Your task to perform on an android device: add a contact in the contacts app Image 0: 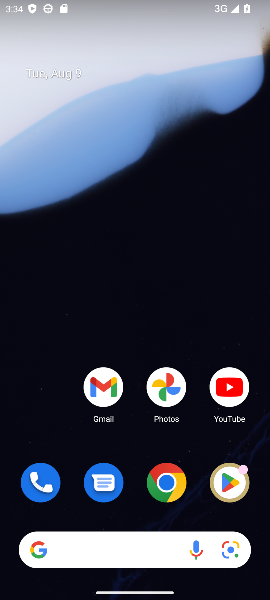
Step 0: drag from (141, 457) to (151, 120)
Your task to perform on an android device: add a contact in the contacts app Image 1: 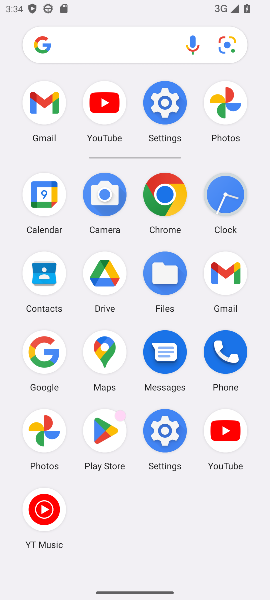
Step 1: click (48, 282)
Your task to perform on an android device: add a contact in the contacts app Image 2: 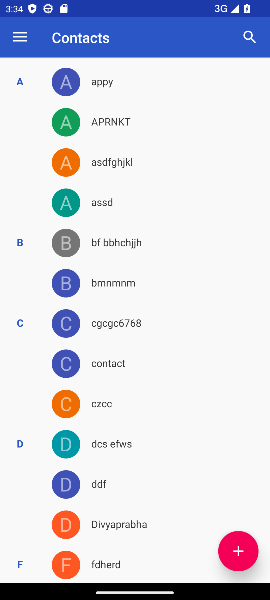
Step 2: click (238, 548)
Your task to perform on an android device: add a contact in the contacts app Image 3: 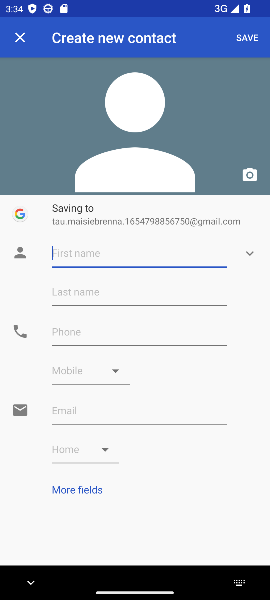
Step 3: click (97, 251)
Your task to perform on an android device: add a contact in the contacts app Image 4: 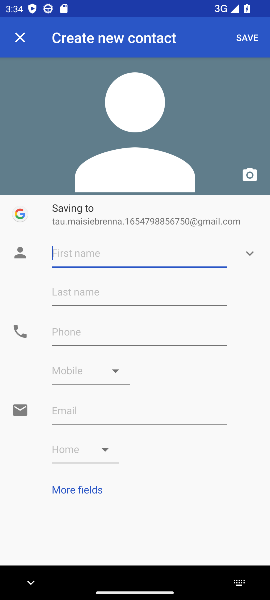
Step 4: type "hfhfgh"
Your task to perform on an android device: add a contact in the contacts app Image 5: 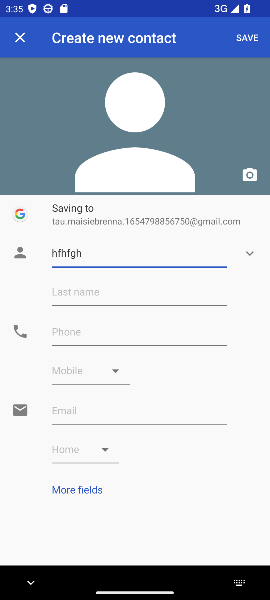
Step 5: click (82, 329)
Your task to perform on an android device: add a contact in the contacts app Image 6: 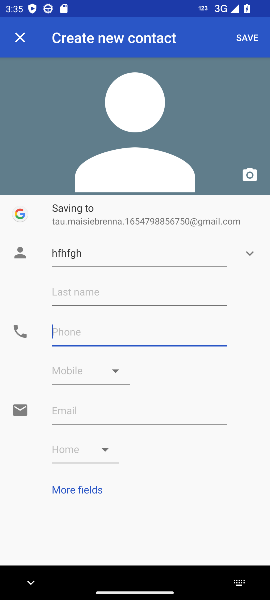
Step 6: type "8567456463"
Your task to perform on an android device: add a contact in the contacts app Image 7: 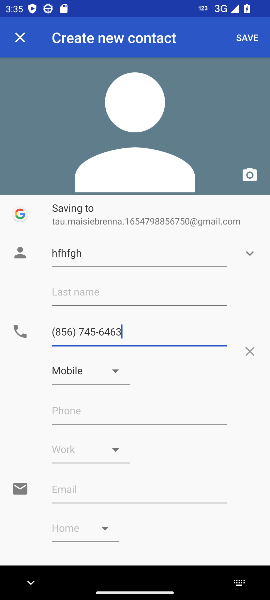
Step 7: click (259, 37)
Your task to perform on an android device: add a contact in the contacts app Image 8: 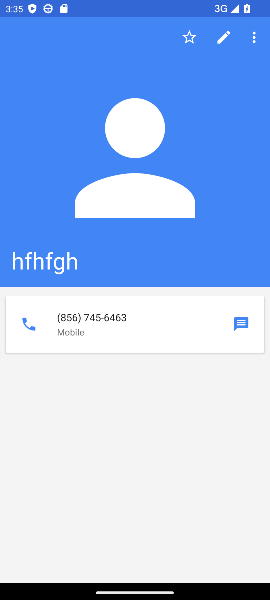
Step 8: task complete